Your task to perform on an android device: Open the phone app and click the voicemail tab. Image 0: 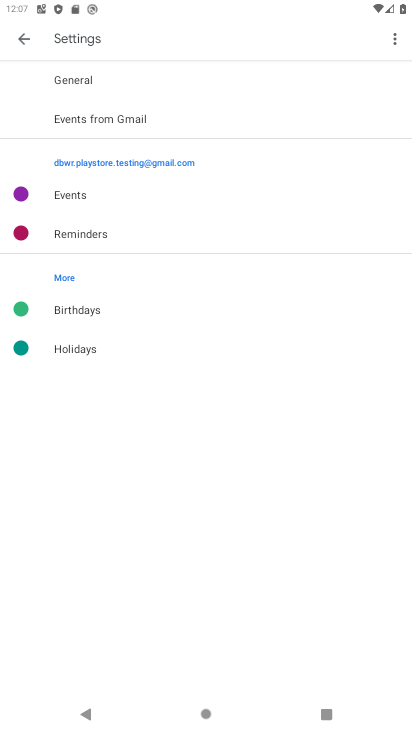
Step 0: press home button
Your task to perform on an android device: Open the phone app and click the voicemail tab. Image 1: 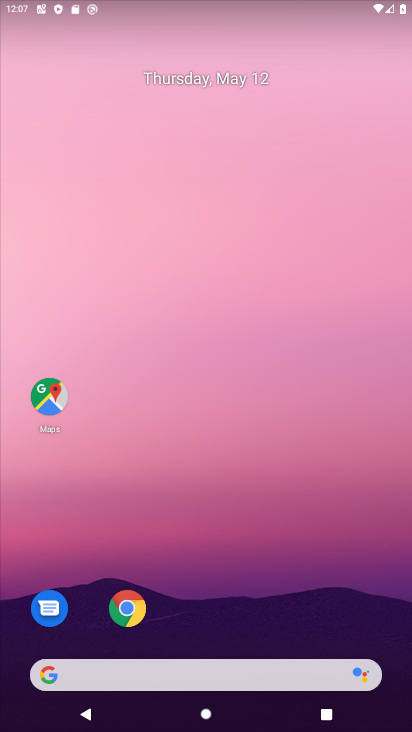
Step 1: drag from (298, 588) to (307, 42)
Your task to perform on an android device: Open the phone app and click the voicemail tab. Image 2: 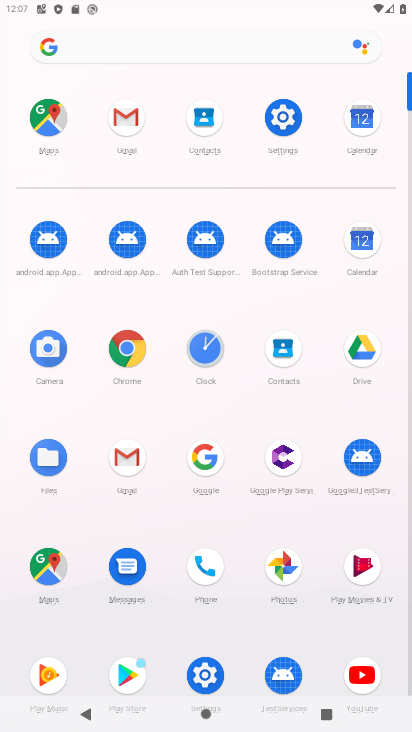
Step 2: click (210, 567)
Your task to perform on an android device: Open the phone app and click the voicemail tab. Image 3: 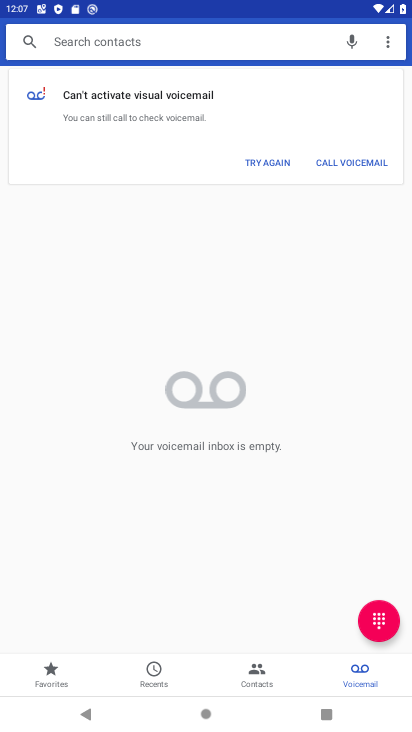
Step 3: click (377, 671)
Your task to perform on an android device: Open the phone app and click the voicemail tab. Image 4: 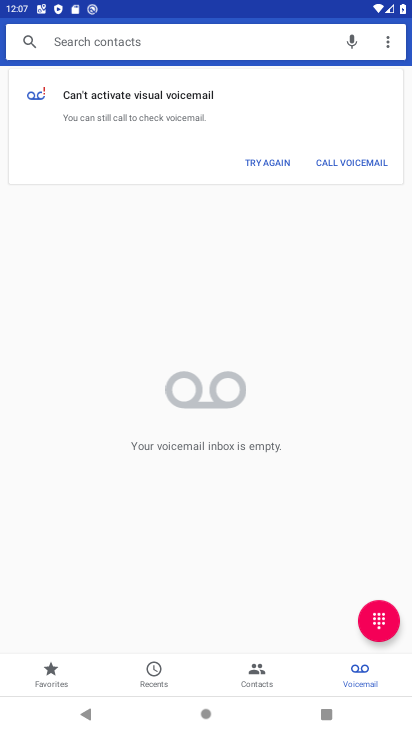
Step 4: task complete